Your task to perform on an android device: Go to settings Image 0: 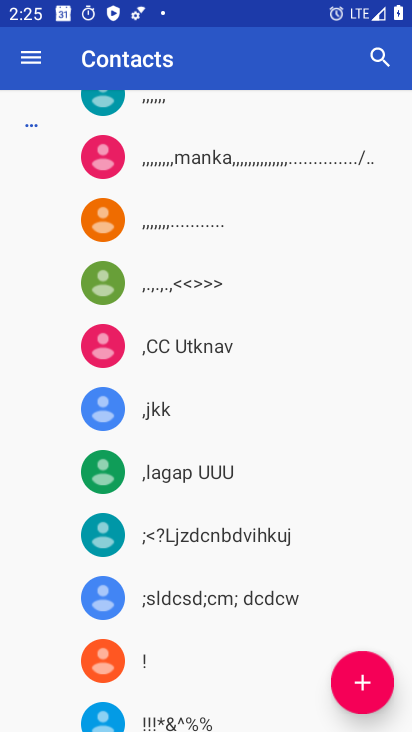
Step 0: press home button
Your task to perform on an android device: Go to settings Image 1: 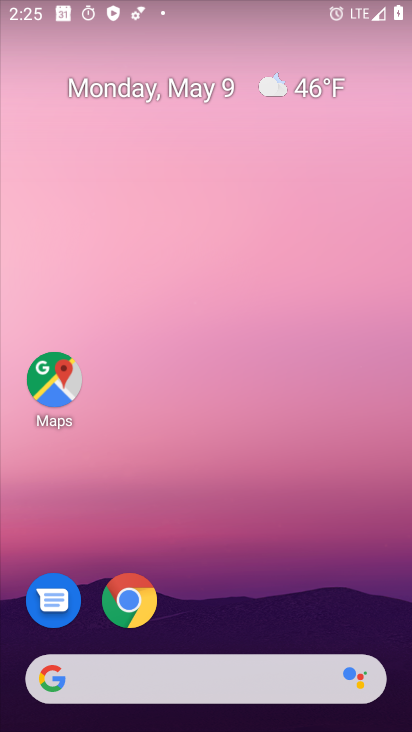
Step 1: drag from (196, 661) to (192, 205)
Your task to perform on an android device: Go to settings Image 2: 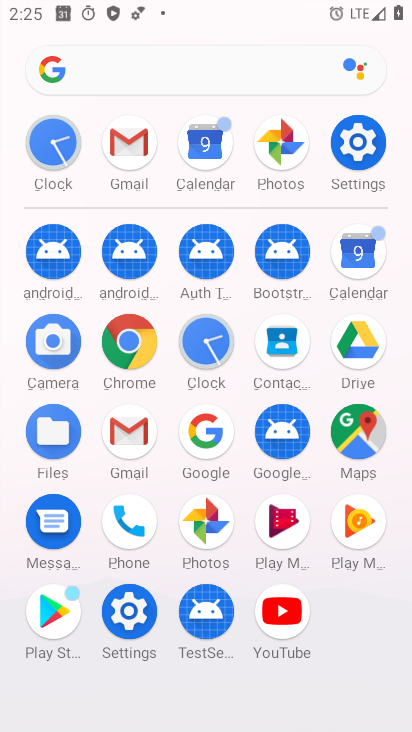
Step 2: click (367, 165)
Your task to perform on an android device: Go to settings Image 3: 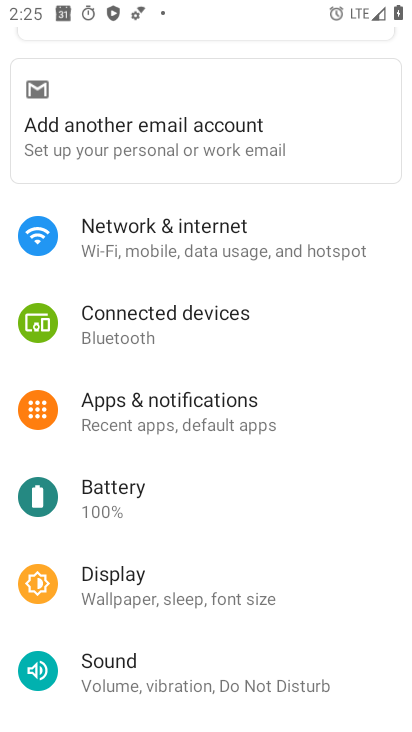
Step 3: task complete